Your task to perform on an android device: set the timer Image 0: 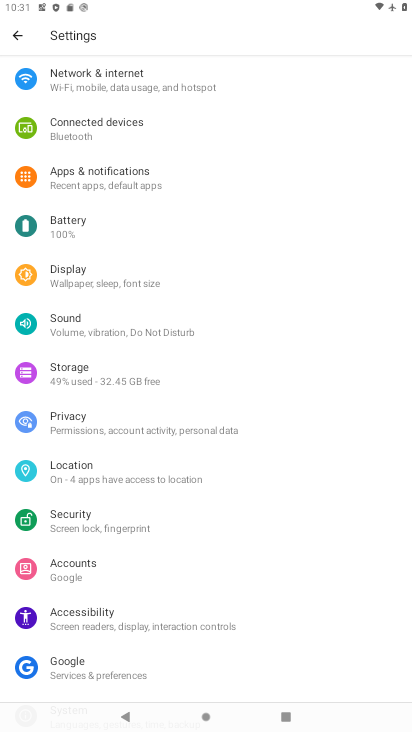
Step 0: press home button
Your task to perform on an android device: set the timer Image 1: 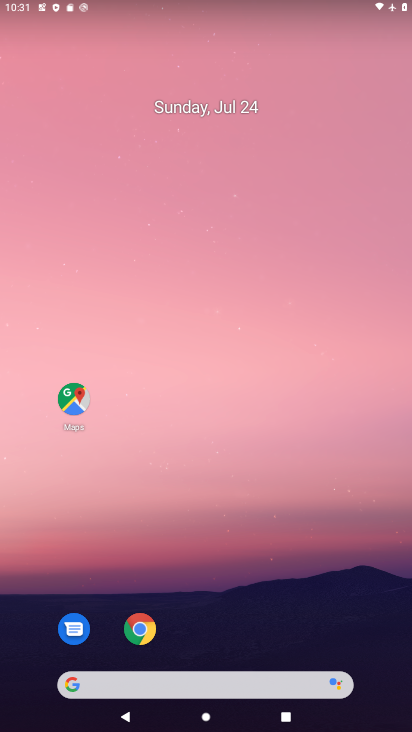
Step 1: drag from (239, 635) to (259, 72)
Your task to perform on an android device: set the timer Image 2: 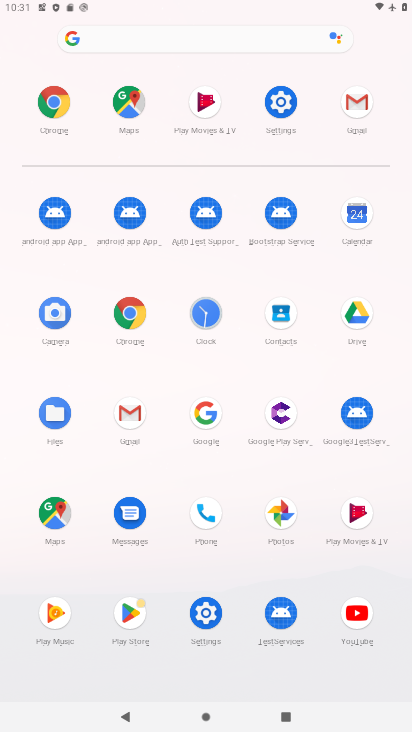
Step 2: click (282, 129)
Your task to perform on an android device: set the timer Image 3: 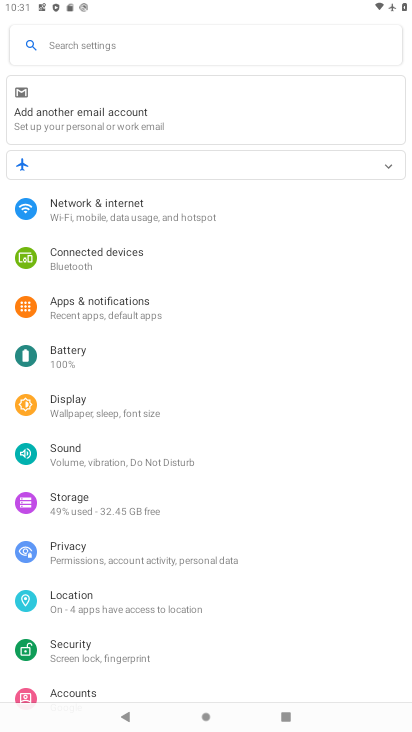
Step 3: press home button
Your task to perform on an android device: set the timer Image 4: 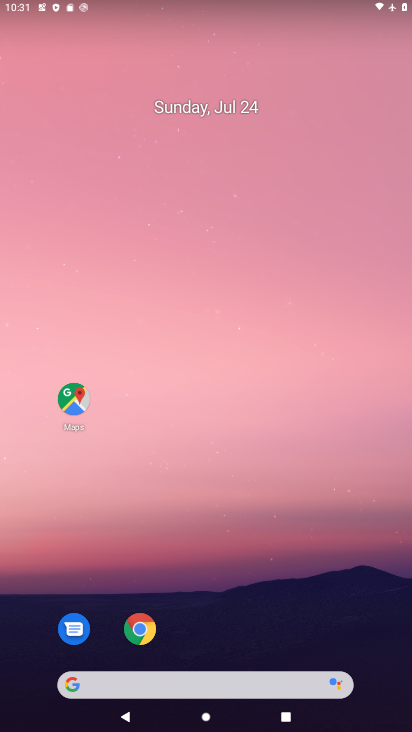
Step 4: drag from (213, 639) to (193, 35)
Your task to perform on an android device: set the timer Image 5: 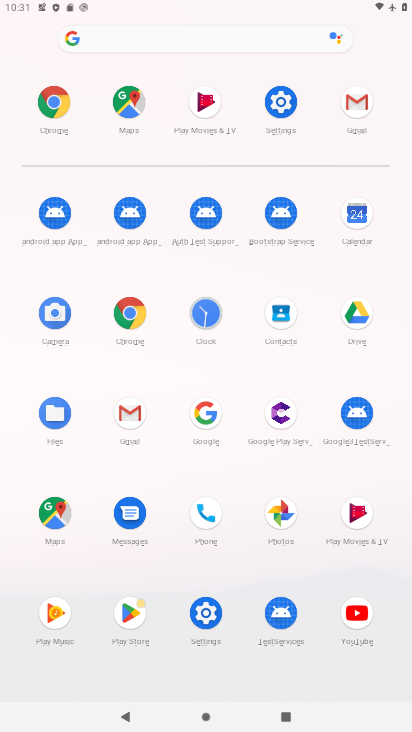
Step 5: click (214, 322)
Your task to perform on an android device: set the timer Image 6: 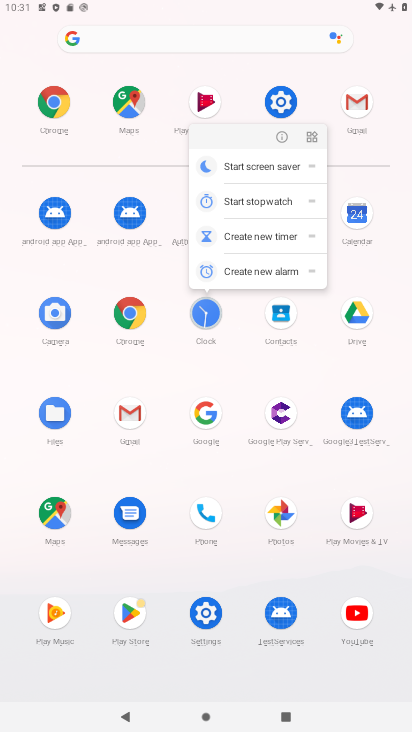
Step 6: click (212, 330)
Your task to perform on an android device: set the timer Image 7: 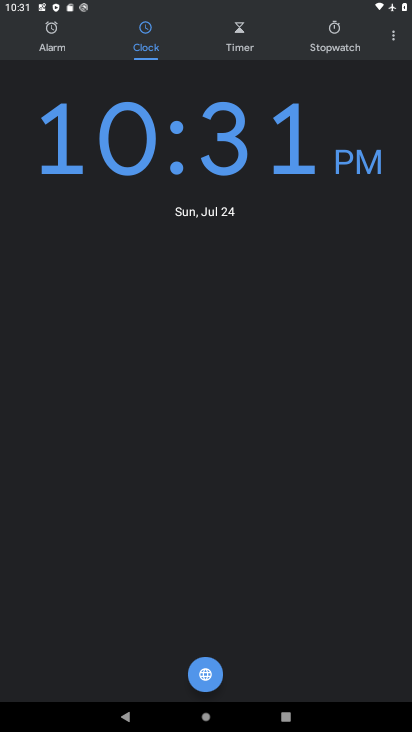
Step 7: click (248, 41)
Your task to perform on an android device: set the timer Image 8: 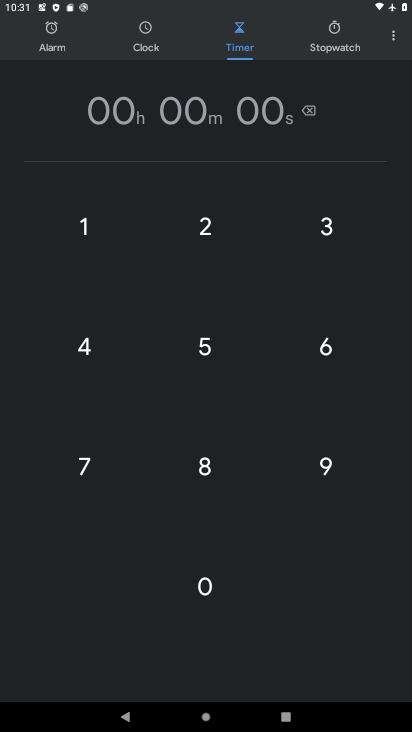
Step 8: task complete